Your task to perform on an android device: turn off notifications settings in the gmail app Image 0: 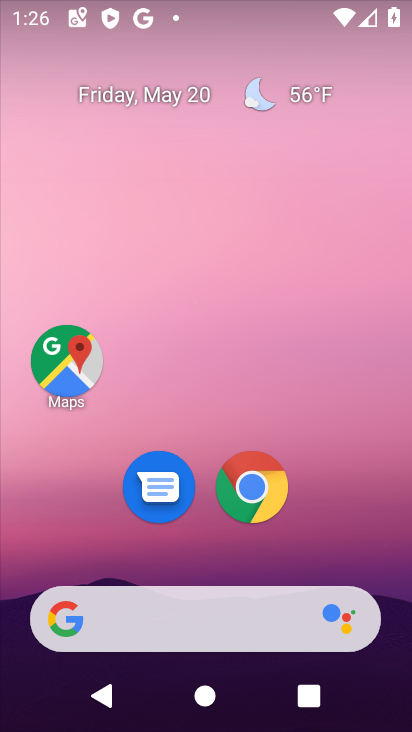
Step 0: drag from (199, 563) to (189, 51)
Your task to perform on an android device: turn off notifications settings in the gmail app Image 1: 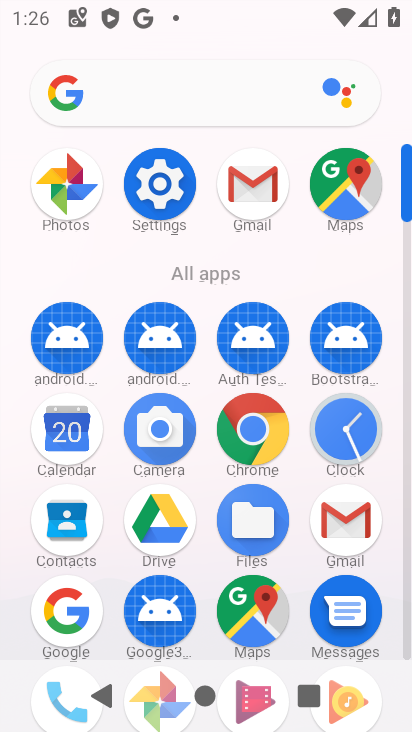
Step 1: click (250, 173)
Your task to perform on an android device: turn off notifications settings in the gmail app Image 2: 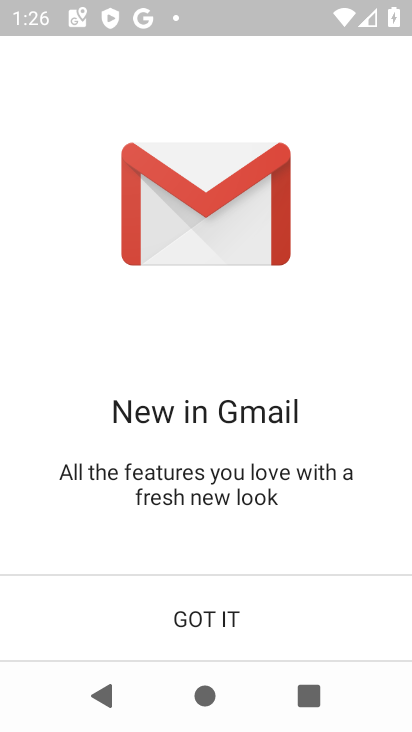
Step 2: click (213, 630)
Your task to perform on an android device: turn off notifications settings in the gmail app Image 3: 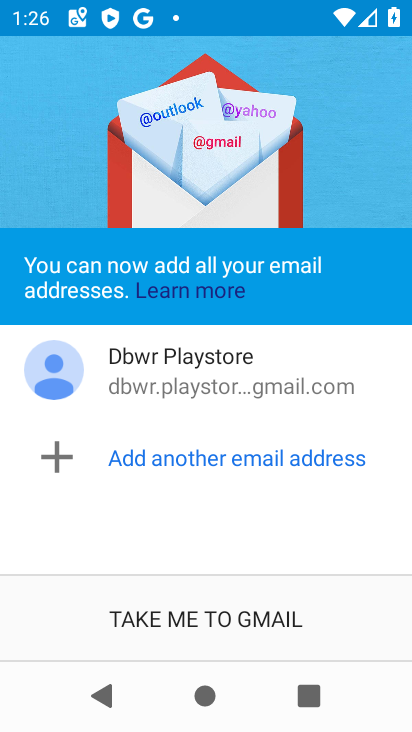
Step 3: click (201, 632)
Your task to perform on an android device: turn off notifications settings in the gmail app Image 4: 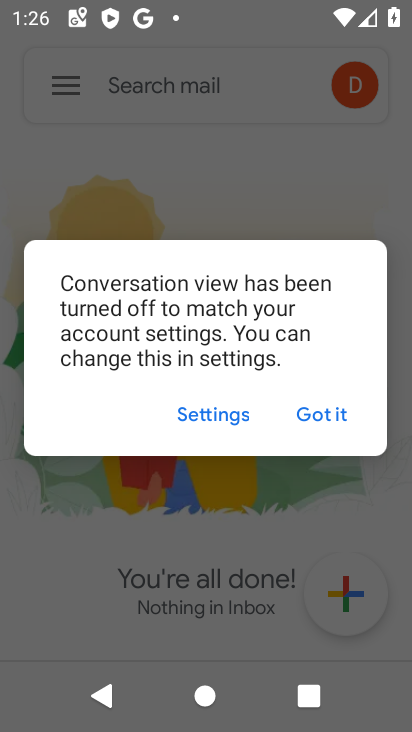
Step 4: click (323, 420)
Your task to perform on an android device: turn off notifications settings in the gmail app Image 5: 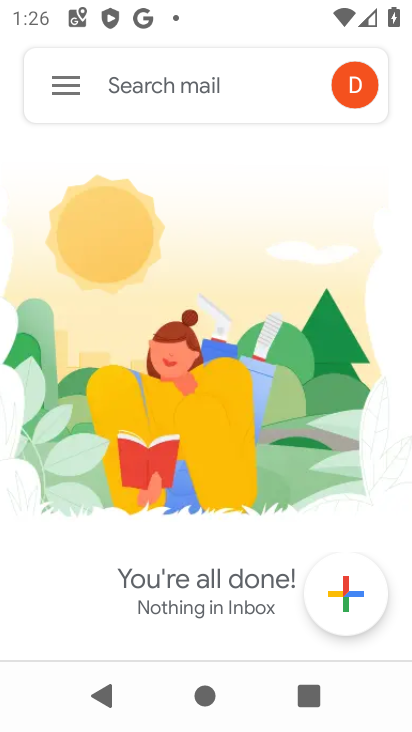
Step 5: click (61, 84)
Your task to perform on an android device: turn off notifications settings in the gmail app Image 6: 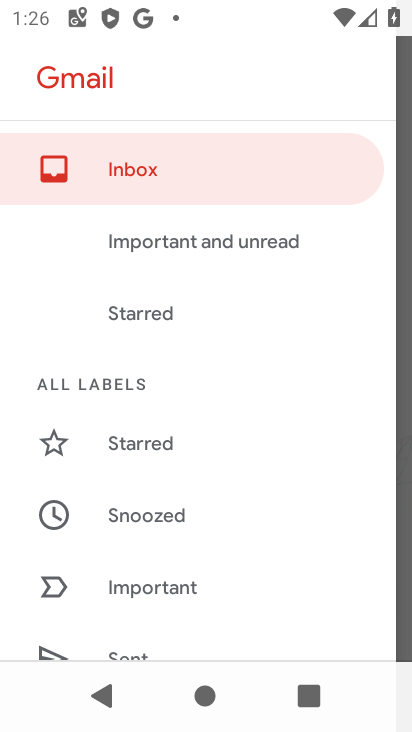
Step 6: drag from (216, 592) to (203, 71)
Your task to perform on an android device: turn off notifications settings in the gmail app Image 7: 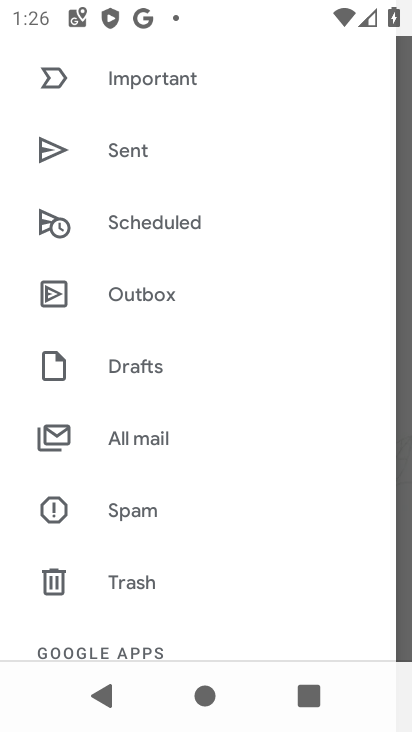
Step 7: drag from (173, 619) to (165, 150)
Your task to perform on an android device: turn off notifications settings in the gmail app Image 8: 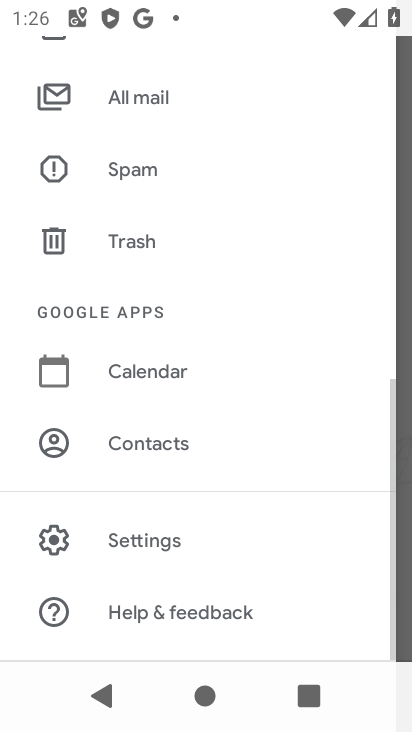
Step 8: click (187, 526)
Your task to perform on an android device: turn off notifications settings in the gmail app Image 9: 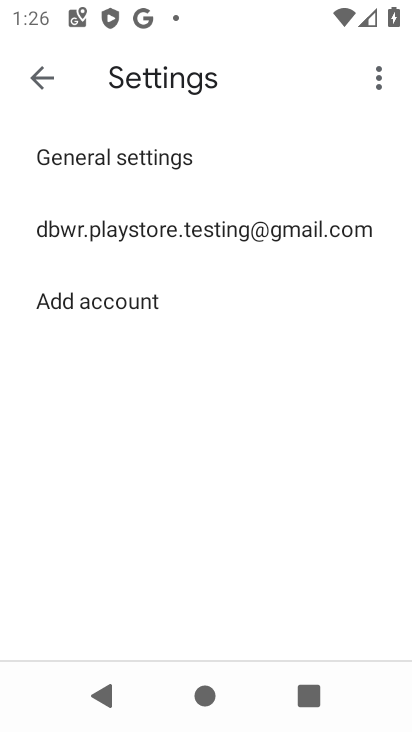
Step 9: click (211, 158)
Your task to perform on an android device: turn off notifications settings in the gmail app Image 10: 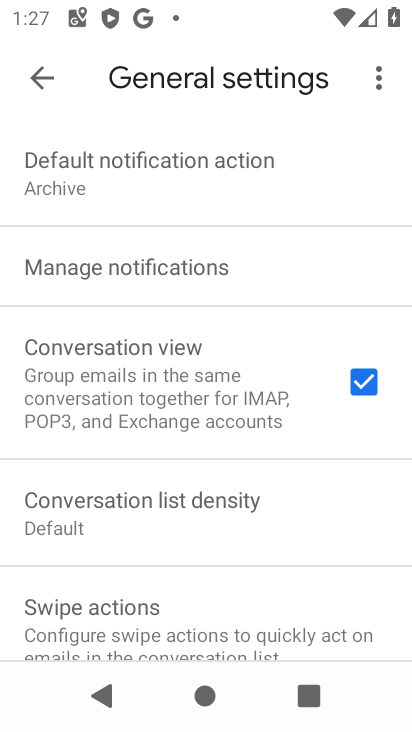
Step 10: click (238, 274)
Your task to perform on an android device: turn off notifications settings in the gmail app Image 11: 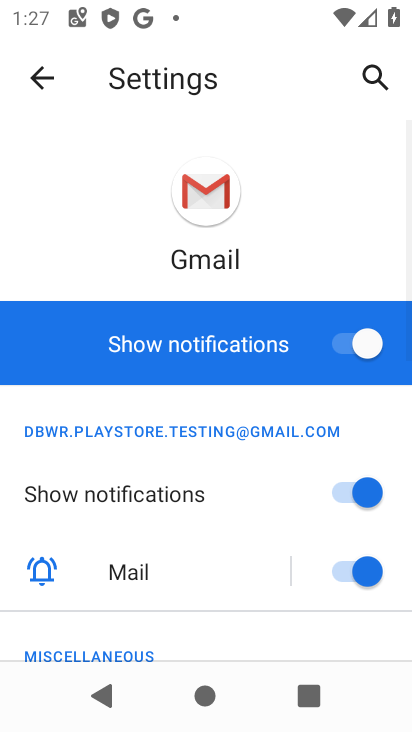
Step 11: click (347, 346)
Your task to perform on an android device: turn off notifications settings in the gmail app Image 12: 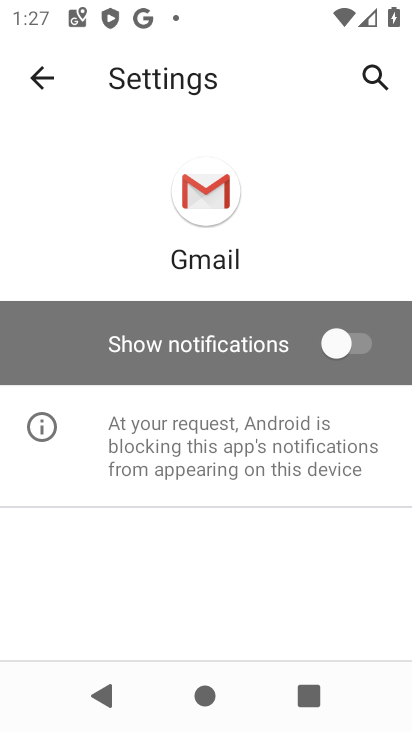
Step 12: task complete